Your task to perform on an android device: Go to Reddit.com Image 0: 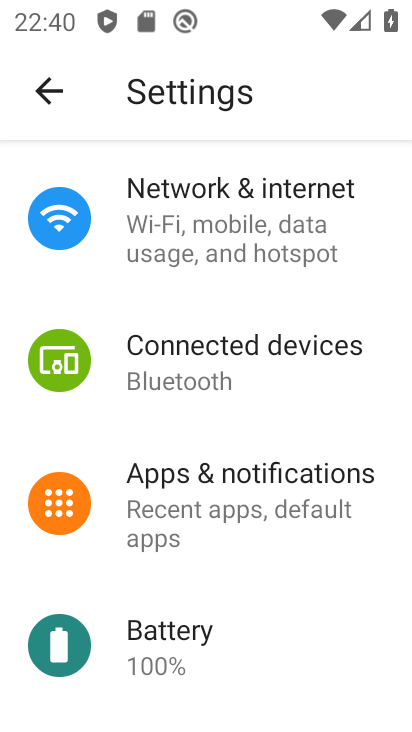
Step 0: press home button
Your task to perform on an android device: Go to Reddit.com Image 1: 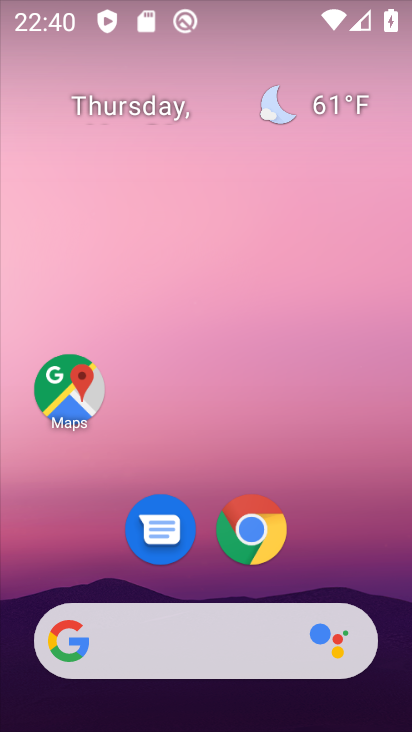
Step 1: click (193, 643)
Your task to perform on an android device: Go to Reddit.com Image 2: 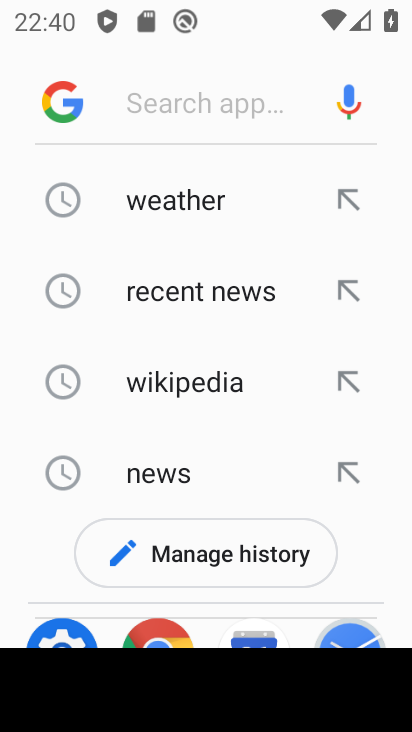
Step 2: type "reddit.com"
Your task to perform on an android device: Go to Reddit.com Image 3: 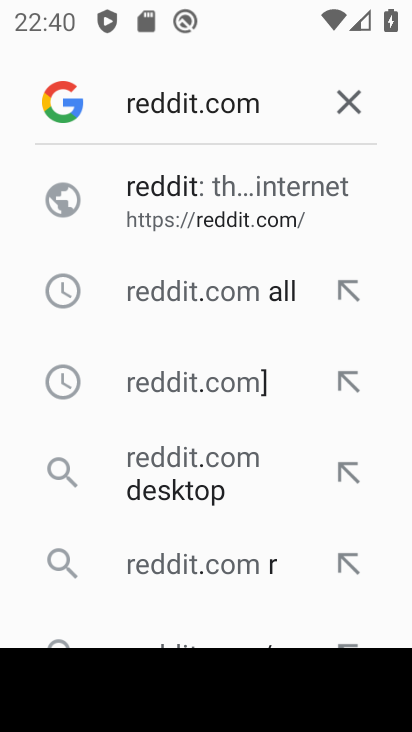
Step 3: click (187, 204)
Your task to perform on an android device: Go to Reddit.com Image 4: 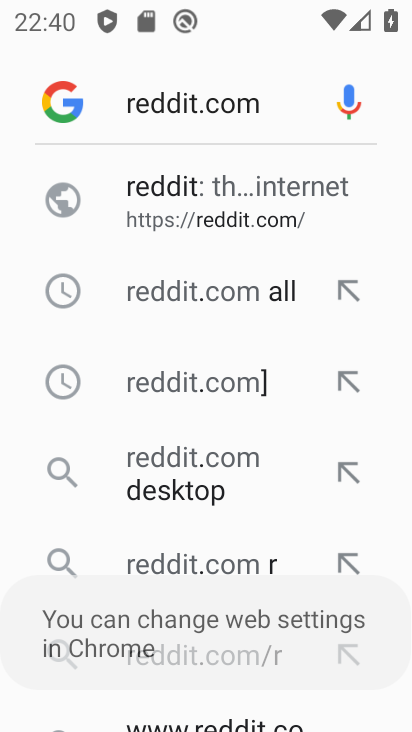
Step 4: task complete